Your task to perform on an android device: What's the weather? Image 0: 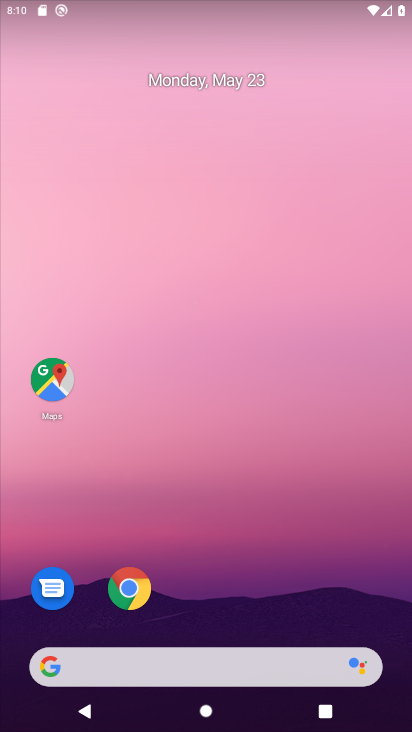
Step 0: click (129, 588)
Your task to perform on an android device: What's the weather? Image 1: 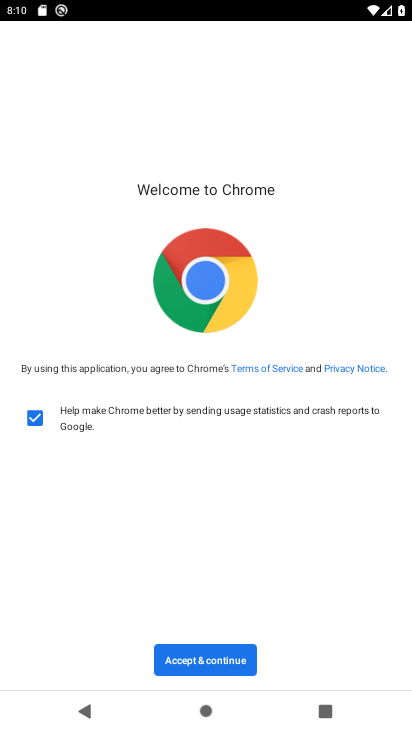
Step 1: click (160, 665)
Your task to perform on an android device: What's the weather? Image 2: 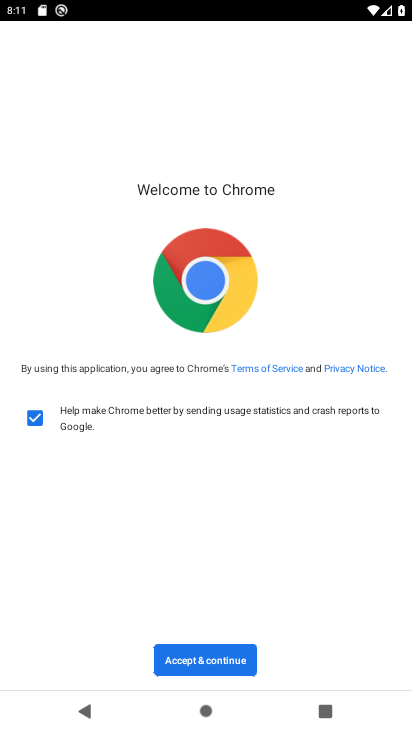
Step 2: click (205, 654)
Your task to perform on an android device: What's the weather? Image 3: 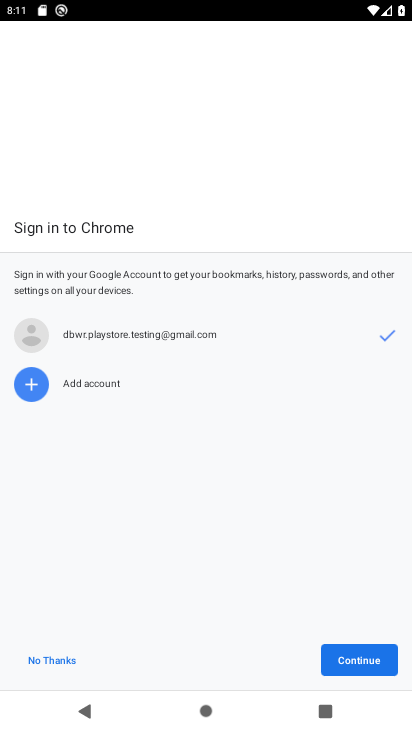
Step 3: click (341, 655)
Your task to perform on an android device: What's the weather? Image 4: 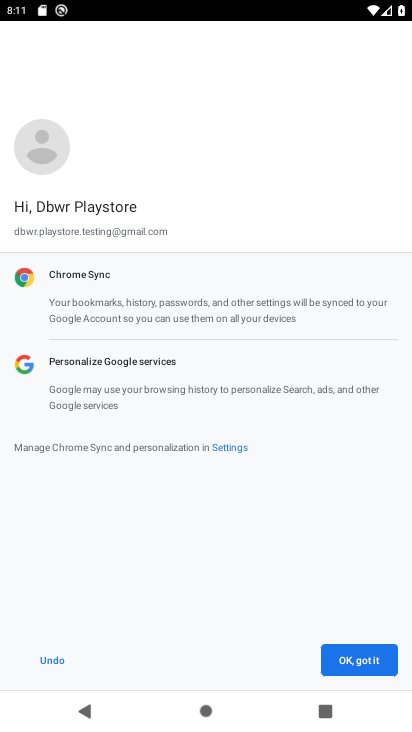
Step 4: click (372, 670)
Your task to perform on an android device: What's the weather? Image 5: 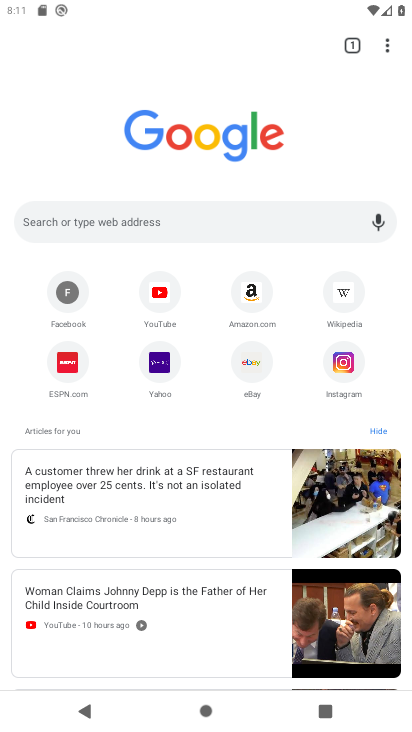
Step 5: click (156, 232)
Your task to perform on an android device: What's the weather? Image 6: 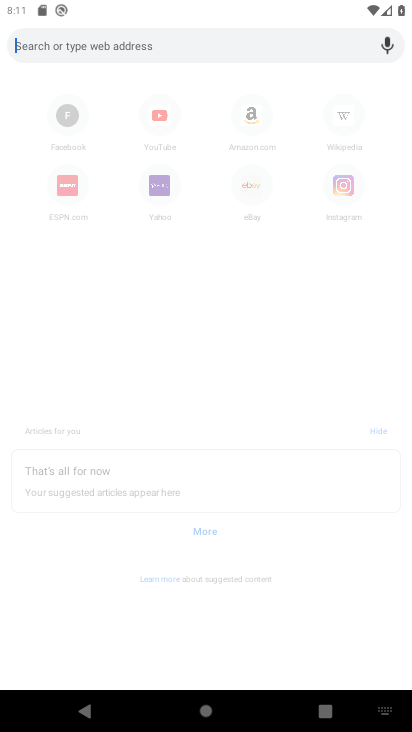
Step 6: type "weather"
Your task to perform on an android device: What's the weather? Image 7: 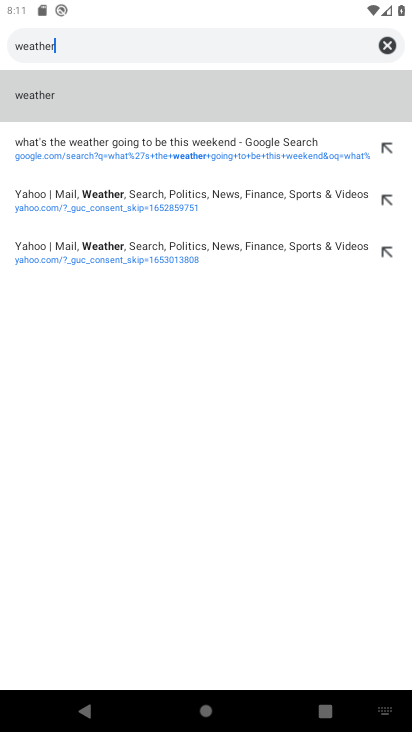
Step 7: click (81, 103)
Your task to perform on an android device: What's the weather? Image 8: 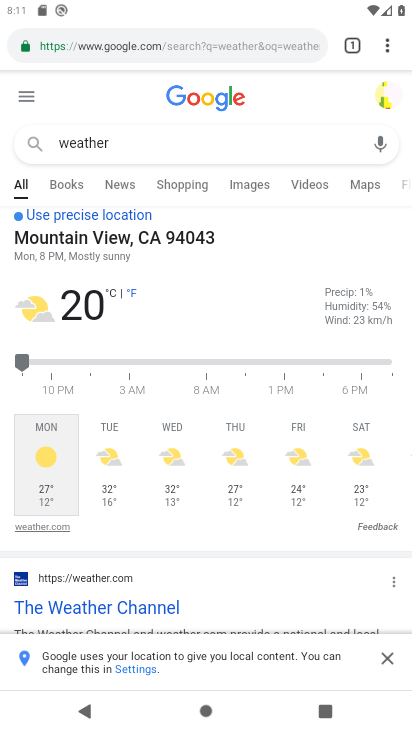
Step 8: task complete